Your task to perform on an android device: change the clock style Image 0: 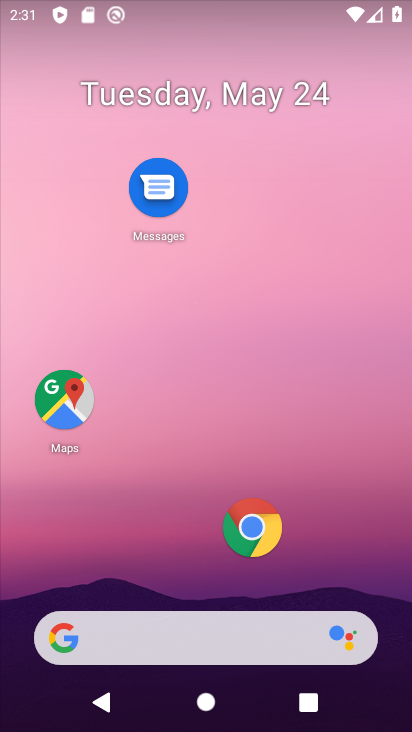
Step 0: drag from (138, 592) to (161, 182)
Your task to perform on an android device: change the clock style Image 1: 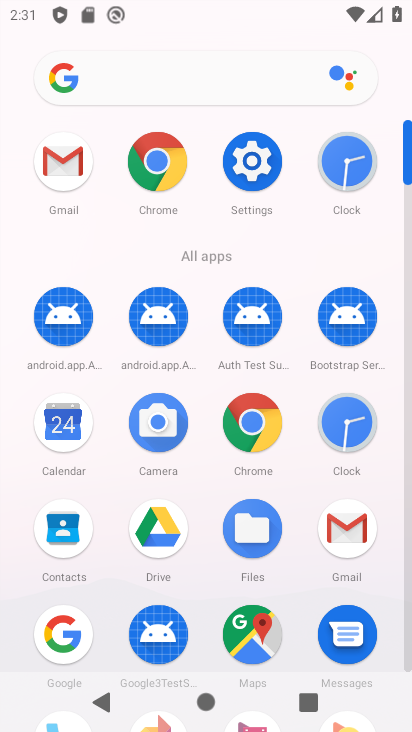
Step 1: click (342, 425)
Your task to perform on an android device: change the clock style Image 2: 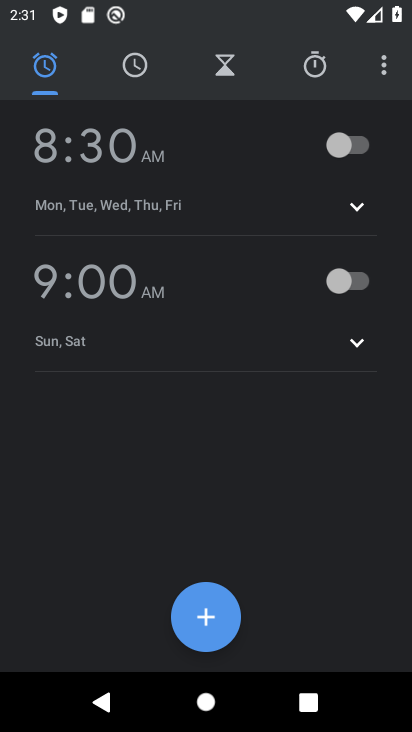
Step 2: click (386, 65)
Your task to perform on an android device: change the clock style Image 3: 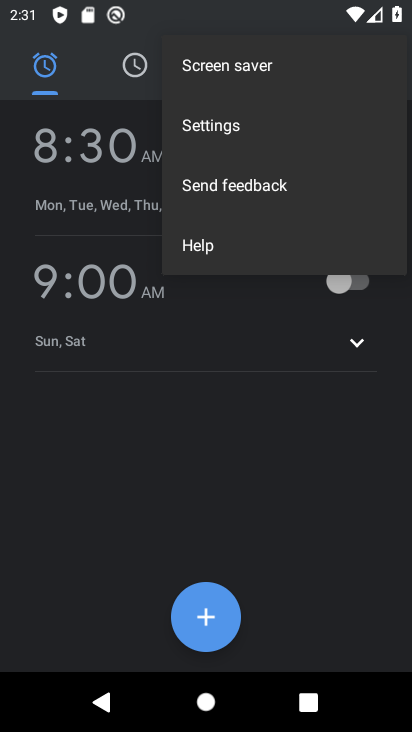
Step 3: click (241, 129)
Your task to perform on an android device: change the clock style Image 4: 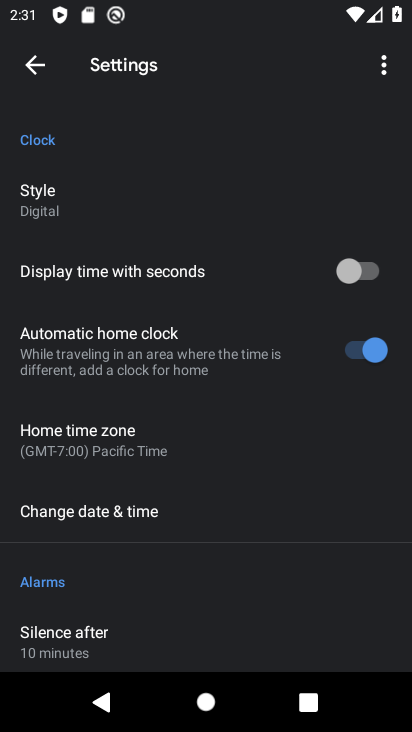
Step 4: click (16, 209)
Your task to perform on an android device: change the clock style Image 5: 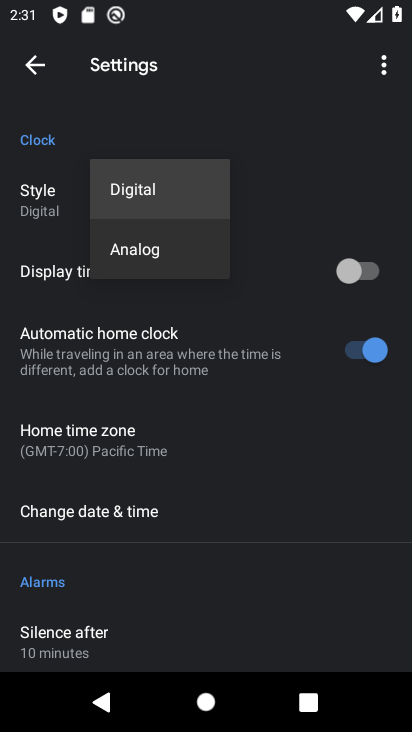
Step 5: click (155, 245)
Your task to perform on an android device: change the clock style Image 6: 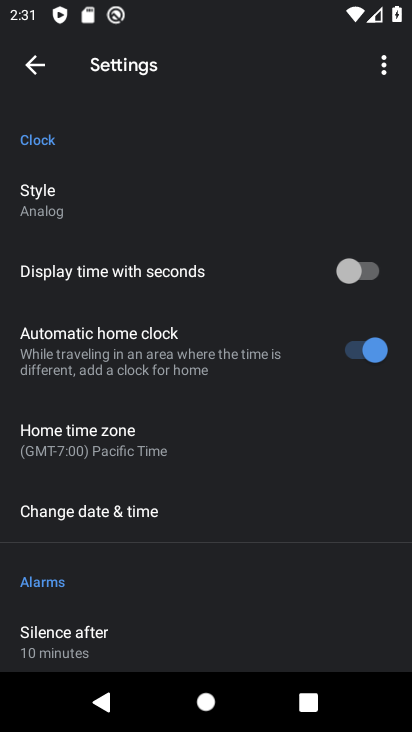
Step 6: task complete